Your task to perform on an android device: Show me the alarms in the clock app Image 0: 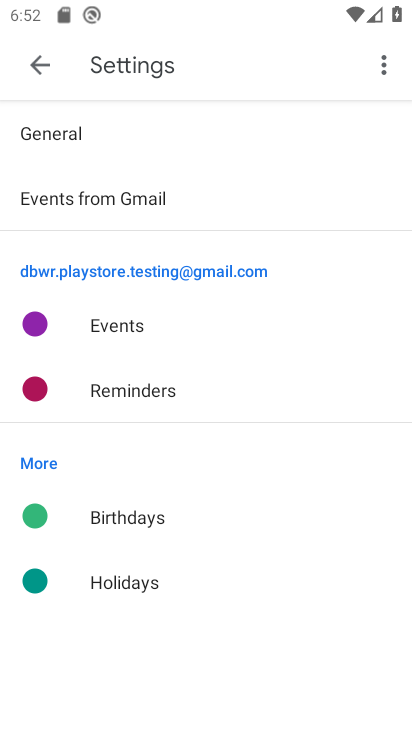
Step 0: press back button
Your task to perform on an android device: Show me the alarms in the clock app Image 1: 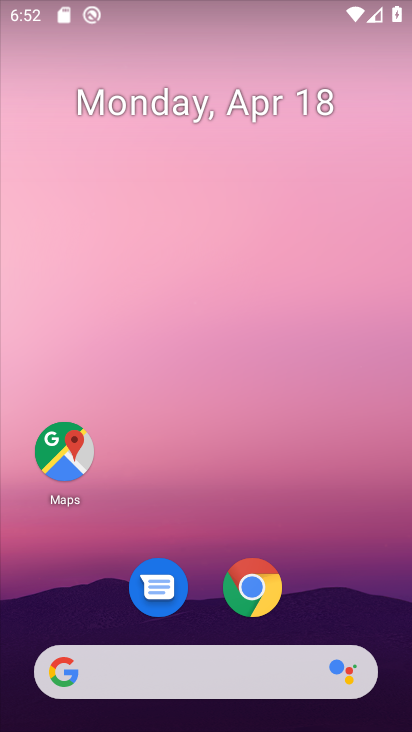
Step 1: drag from (353, 612) to (265, 73)
Your task to perform on an android device: Show me the alarms in the clock app Image 2: 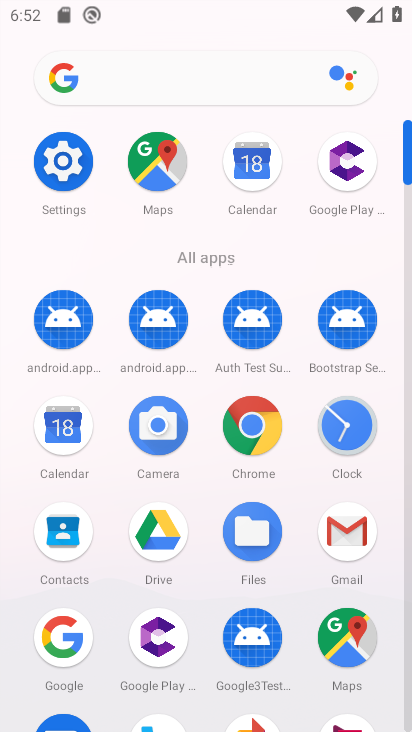
Step 2: click (335, 432)
Your task to perform on an android device: Show me the alarms in the clock app Image 3: 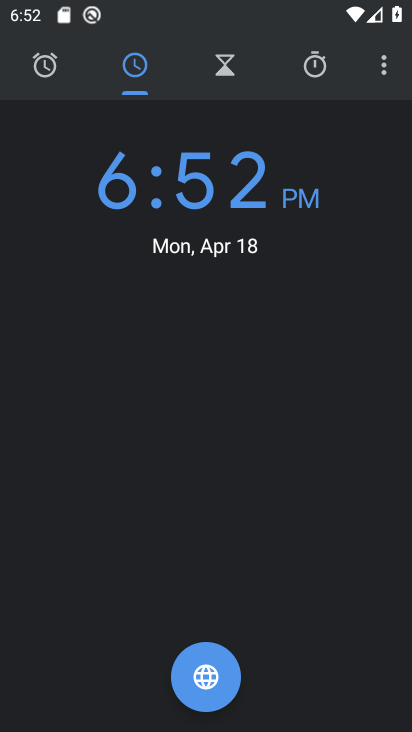
Step 3: click (49, 74)
Your task to perform on an android device: Show me the alarms in the clock app Image 4: 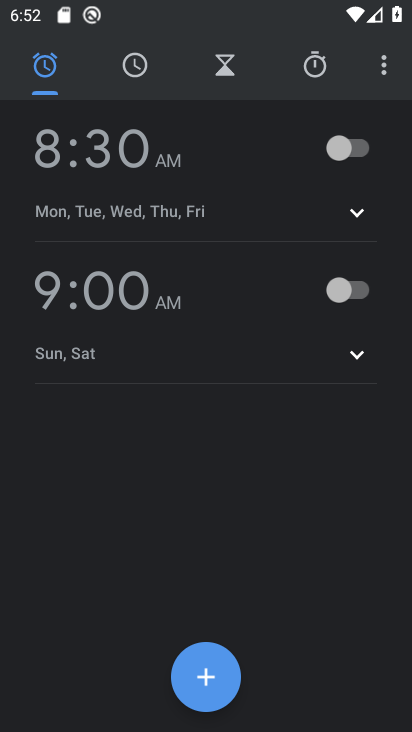
Step 4: click (363, 167)
Your task to perform on an android device: Show me the alarms in the clock app Image 5: 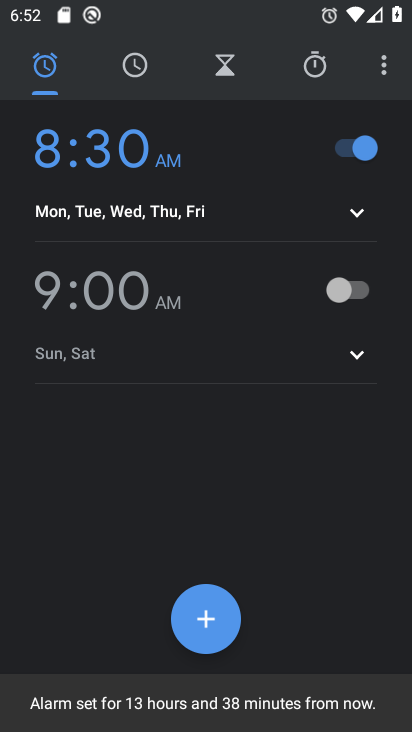
Step 5: task complete